Your task to perform on an android device: Clear the shopping cart on newegg. Image 0: 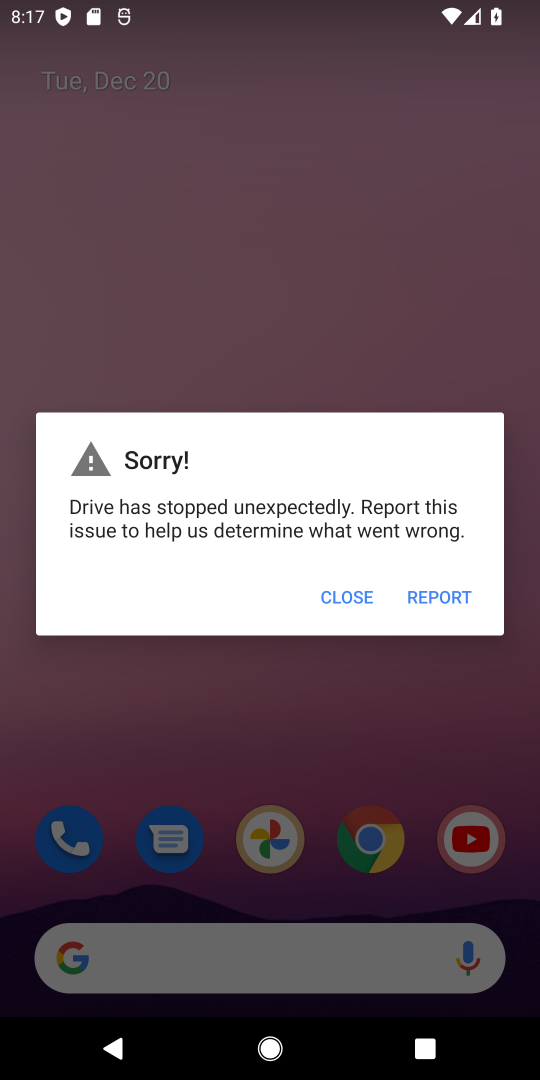
Step 0: press home button
Your task to perform on an android device: Clear the shopping cart on newegg. Image 1: 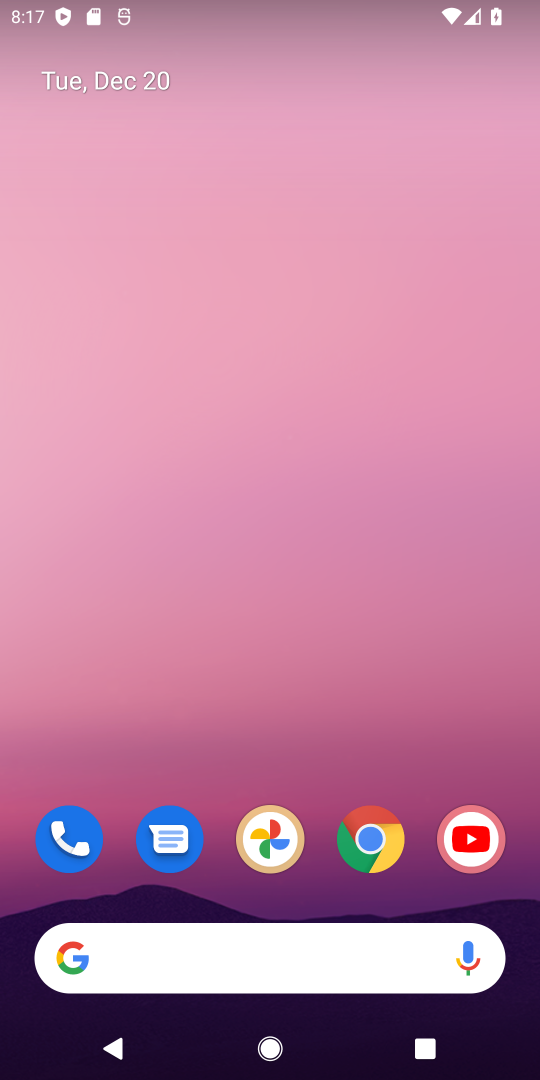
Step 1: click (281, 949)
Your task to perform on an android device: Clear the shopping cart on newegg. Image 2: 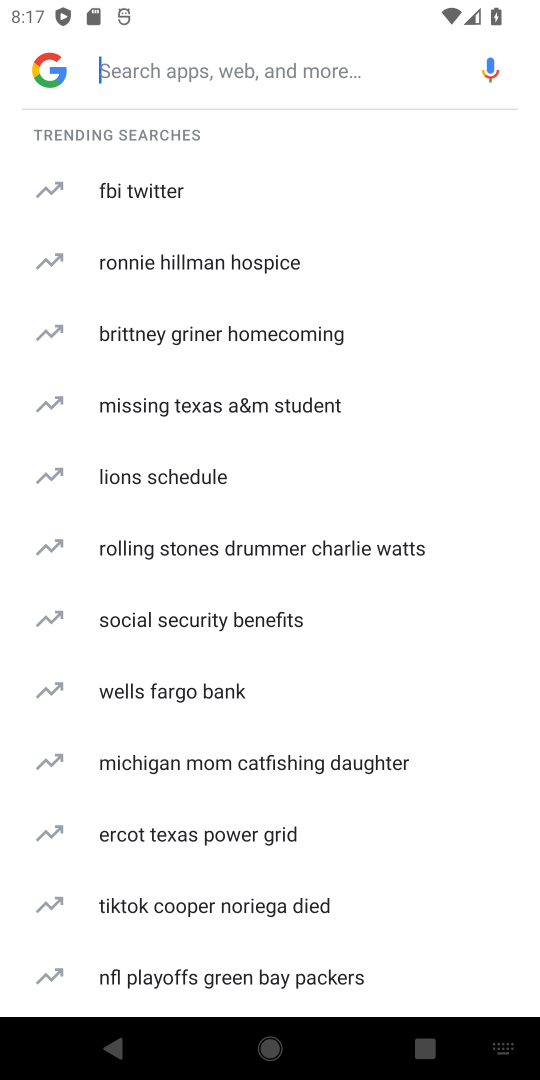
Step 2: type "newegg"
Your task to perform on an android device: Clear the shopping cart on newegg. Image 3: 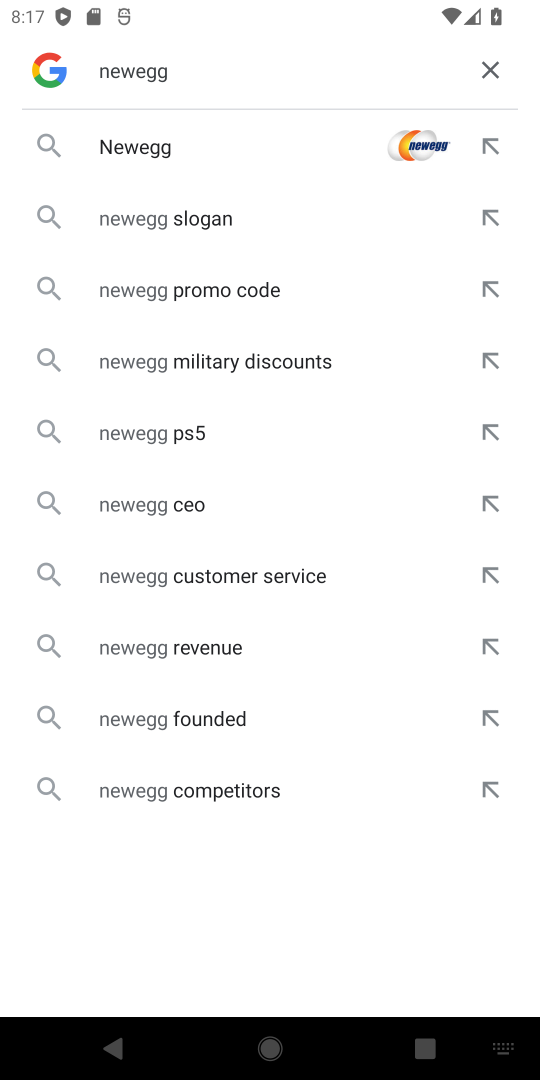
Step 3: click (150, 149)
Your task to perform on an android device: Clear the shopping cart on newegg. Image 4: 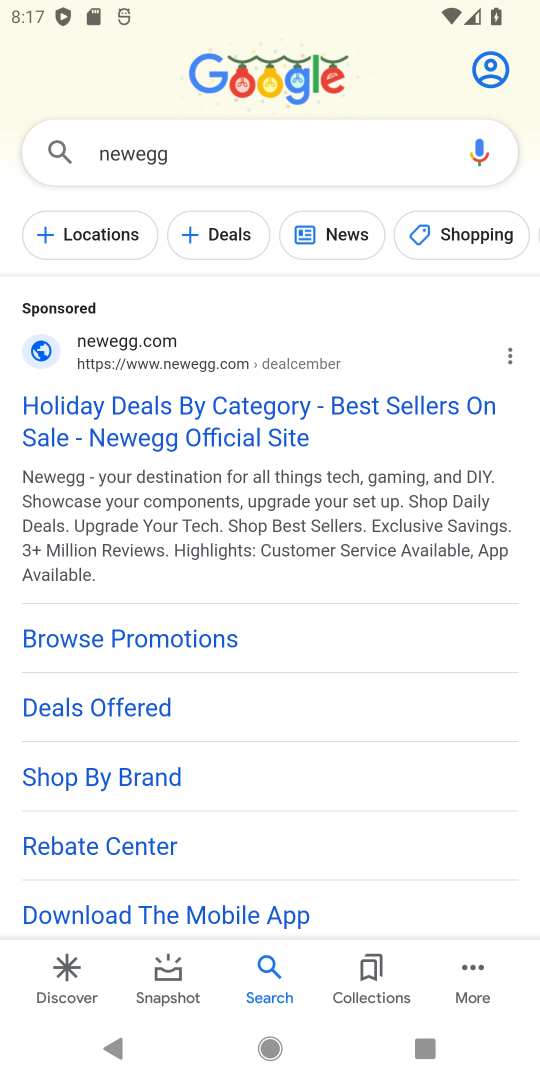
Step 4: click (150, 415)
Your task to perform on an android device: Clear the shopping cart on newegg. Image 5: 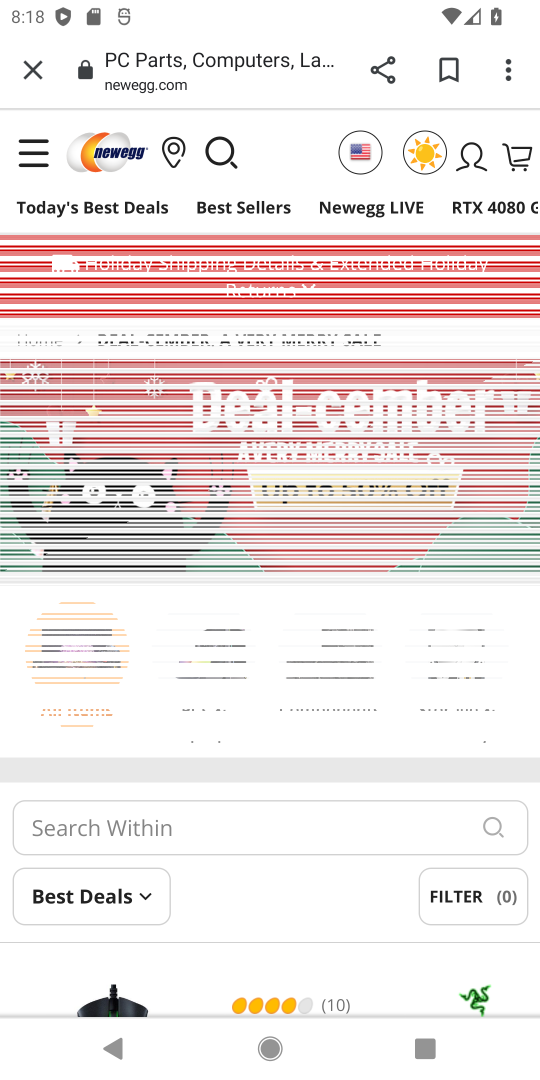
Step 5: click (515, 161)
Your task to perform on an android device: Clear the shopping cart on newegg. Image 6: 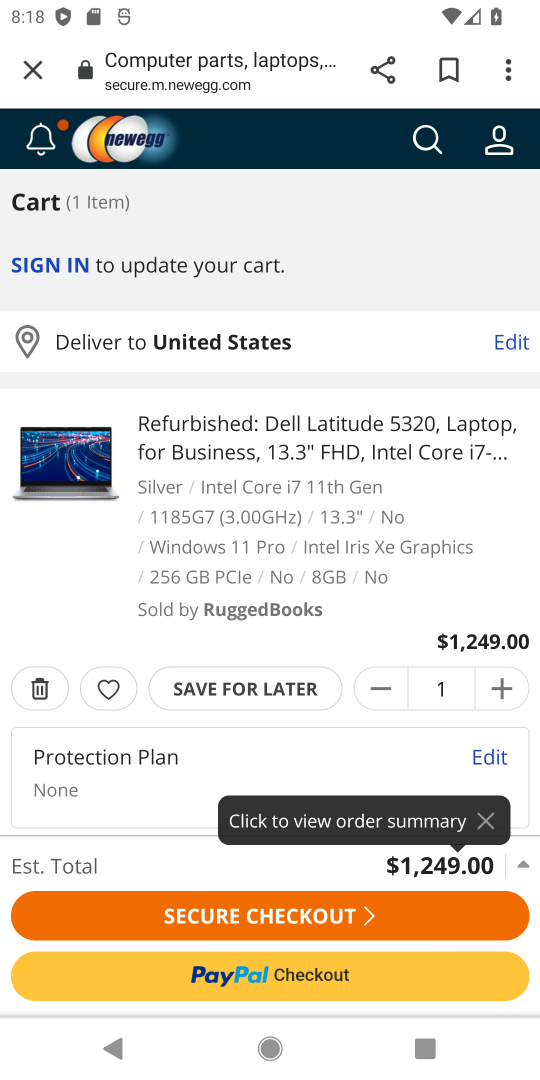
Step 6: click (40, 686)
Your task to perform on an android device: Clear the shopping cart on newegg. Image 7: 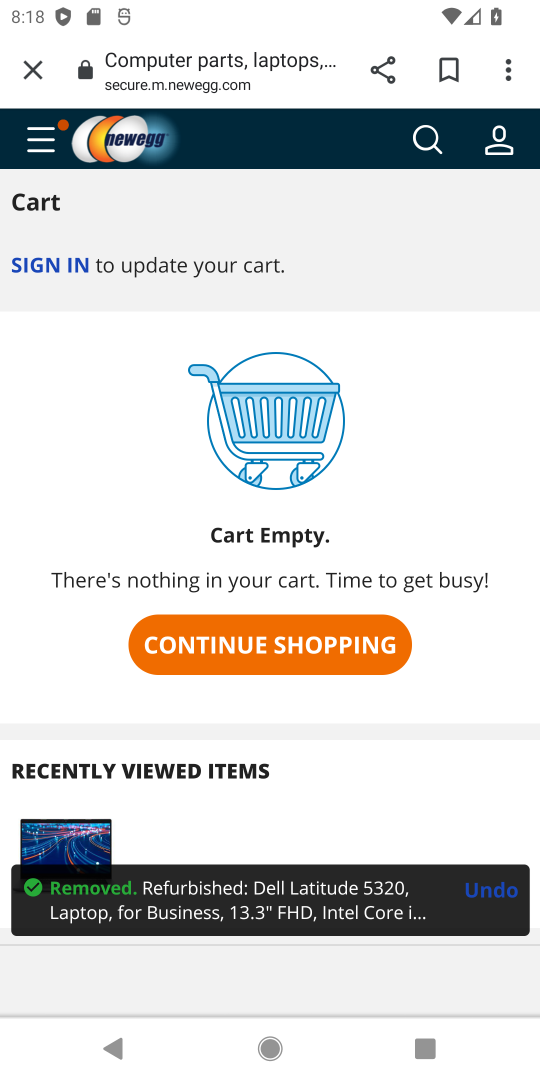
Step 7: task complete